Your task to perform on an android device: open app "Nova Launcher" (install if not already installed) and enter user name: "haggard@gmail.com" and password: "sadder" Image 0: 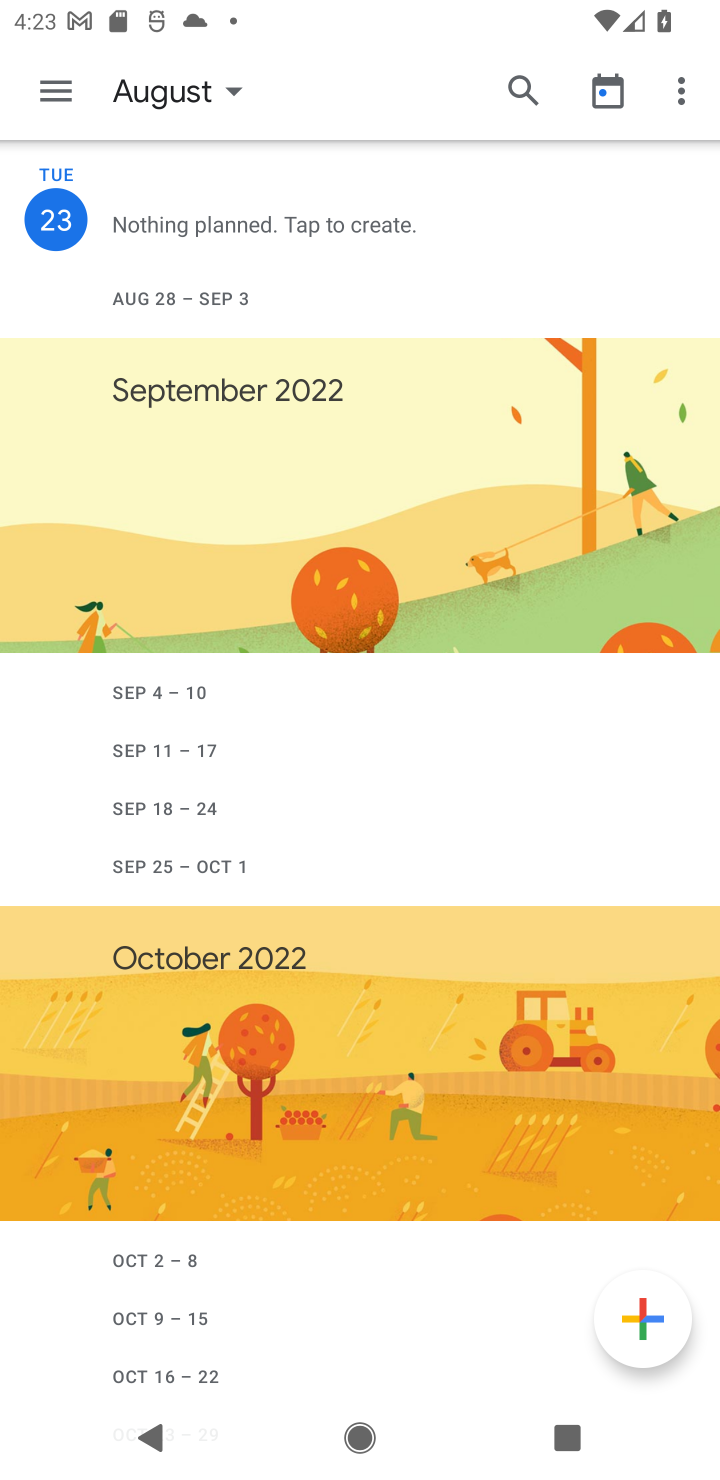
Step 0: press home button
Your task to perform on an android device: open app "Nova Launcher" (install if not already installed) and enter user name: "haggard@gmail.com" and password: "sadder" Image 1: 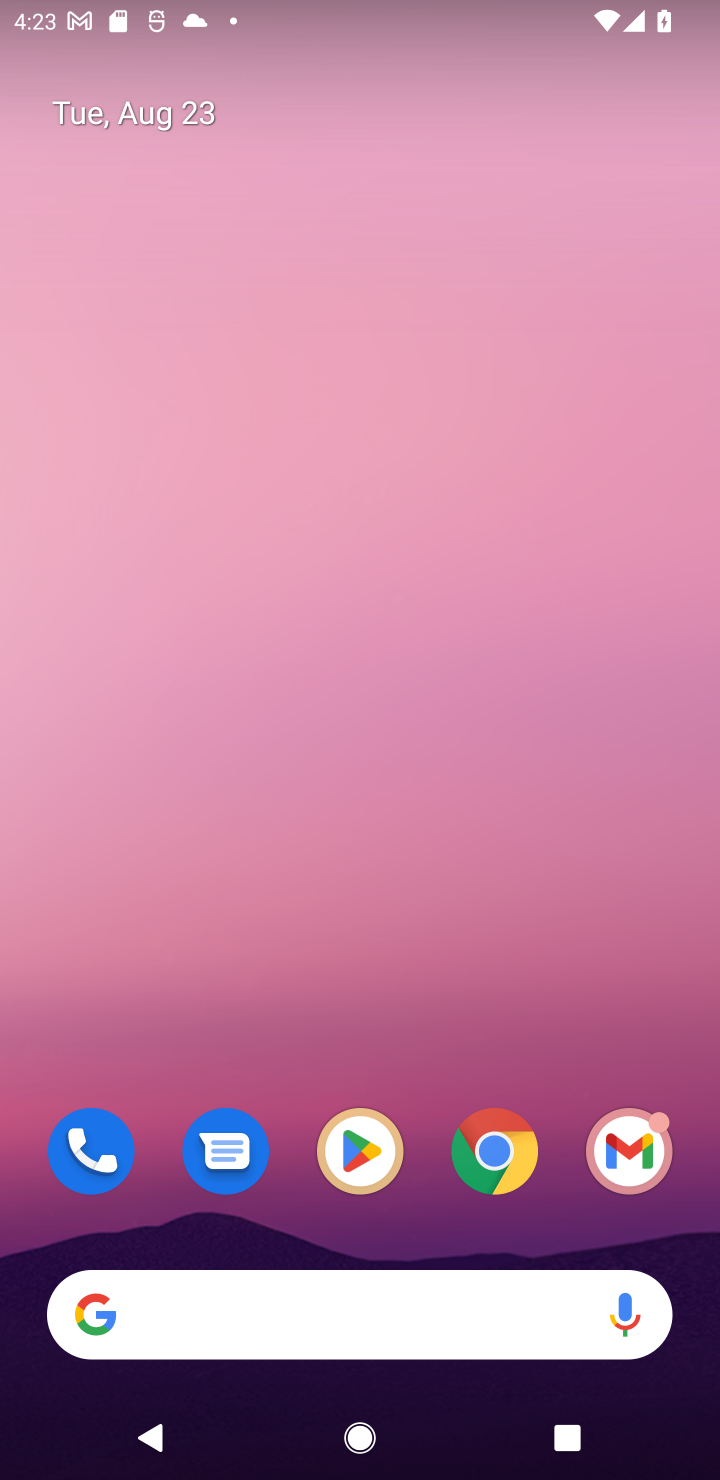
Step 1: click (379, 1151)
Your task to perform on an android device: open app "Nova Launcher" (install if not already installed) and enter user name: "haggard@gmail.com" and password: "sadder" Image 2: 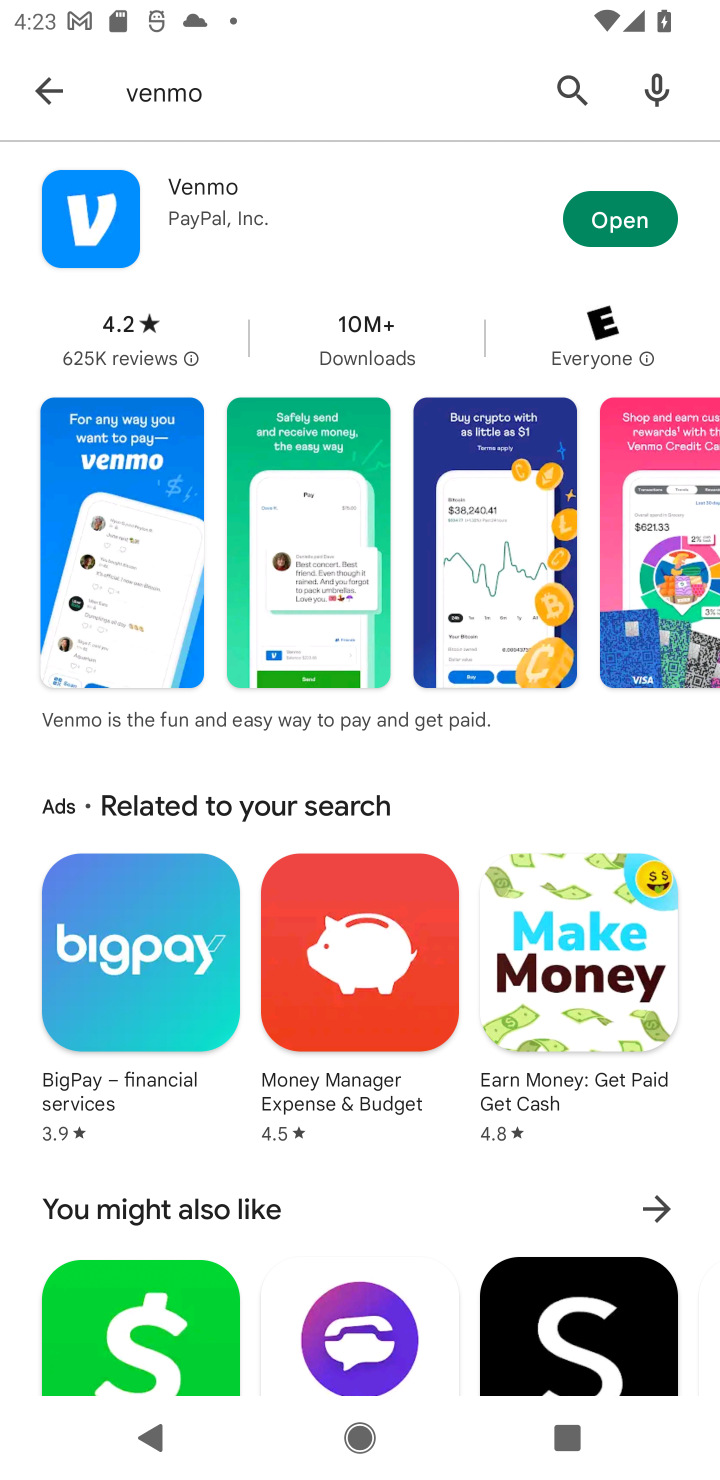
Step 2: click (571, 81)
Your task to perform on an android device: open app "Nova Launcher" (install if not already installed) and enter user name: "haggard@gmail.com" and password: "sadder" Image 3: 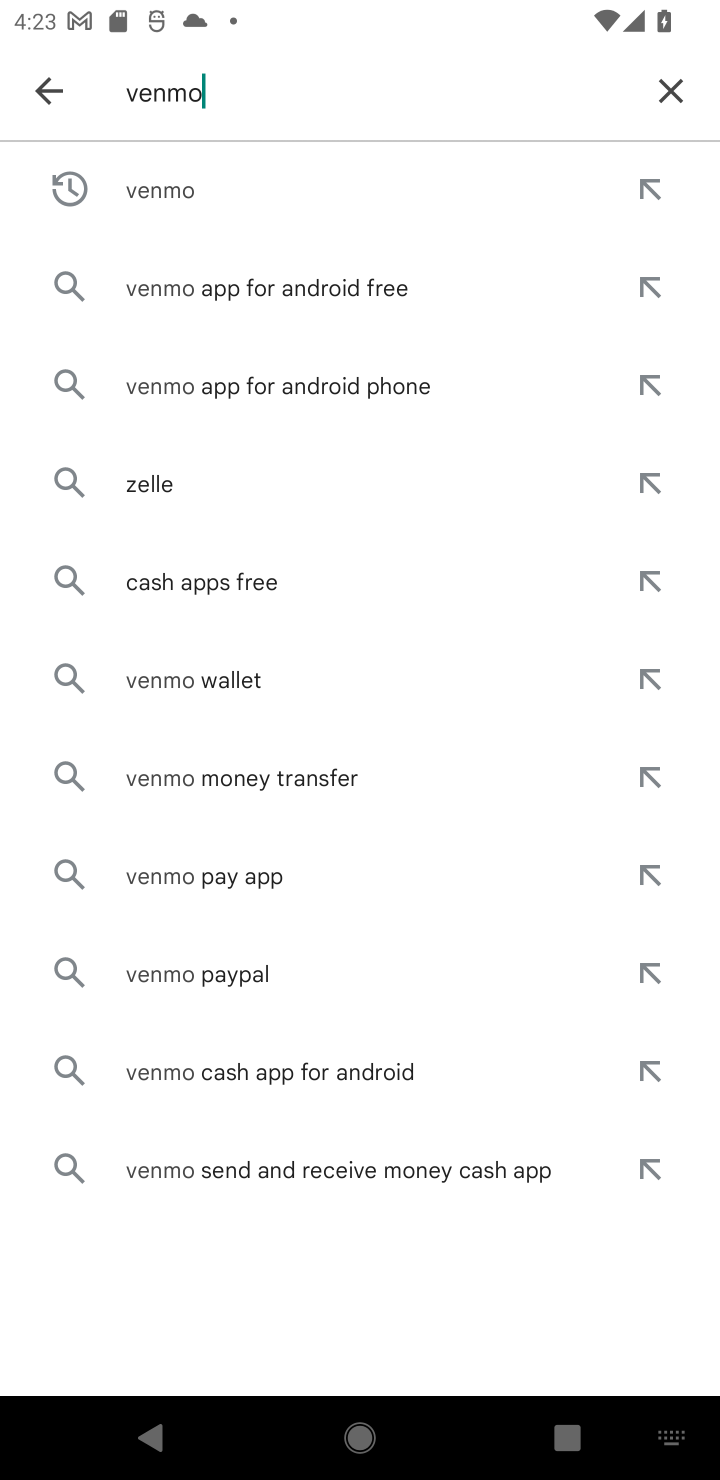
Step 3: click (668, 87)
Your task to perform on an android device: open app "Nova Launcher" (install if not already installed) and enter user name: "haggard@gmail.com" and password: "sadder" Image 4: 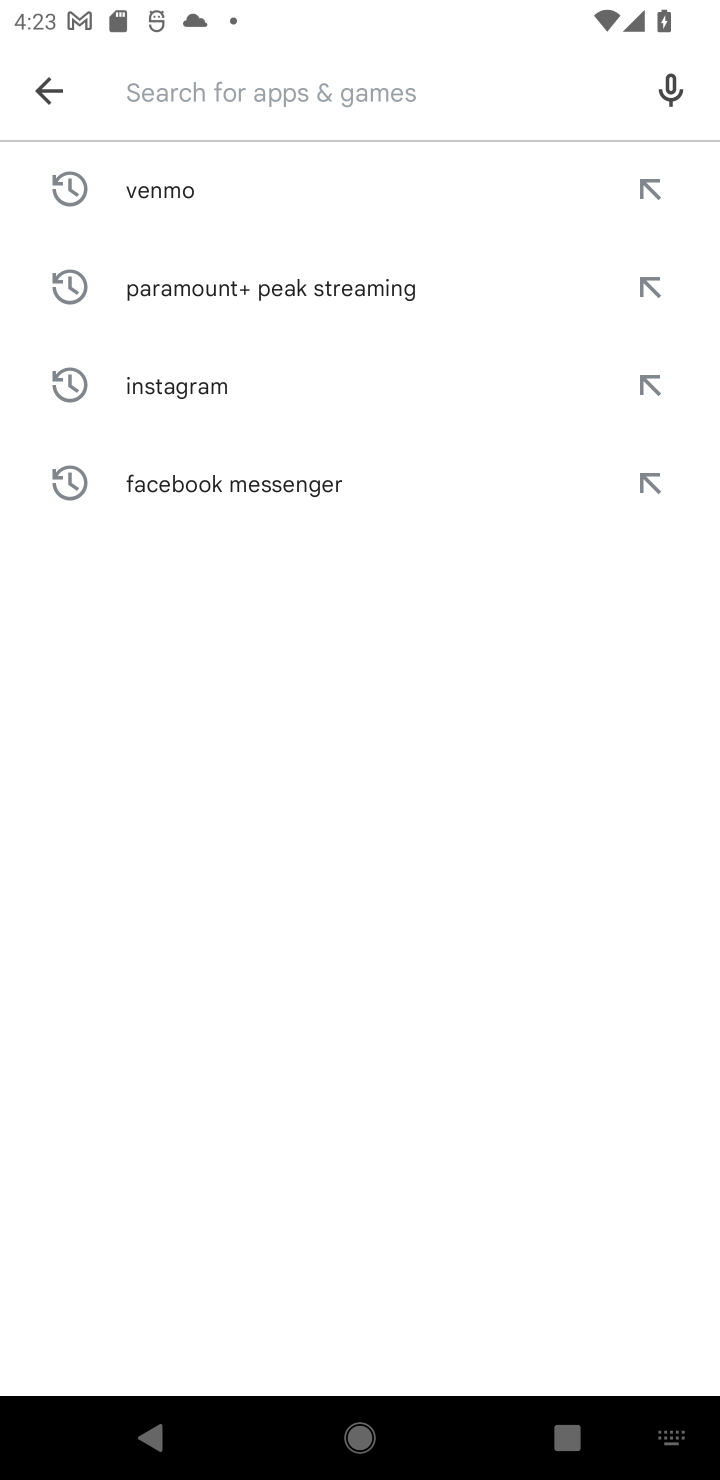
Step 4: type "Nova Launcher"
Your task to perform on an android device: open app "Nova Launcher" (install if not already installed) and enter user name: "haggard@gmail.com" and password: "sadder" Image 5: 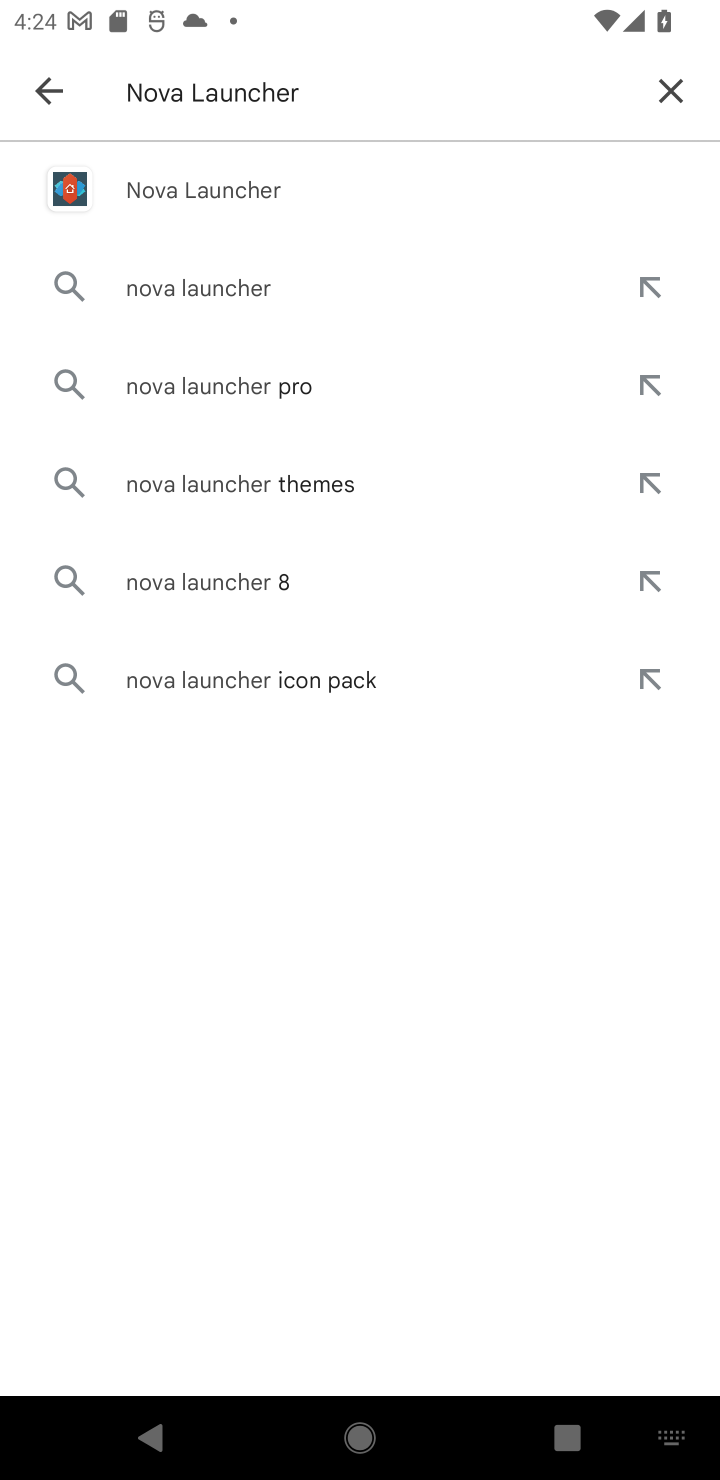
Step 5: click (209, 186)
Your task to perform on an android device: open app "Nova Launcher" (install if not already installed) and enter user name: "haggard@gmail.com" and password: "sadder" Image 6: 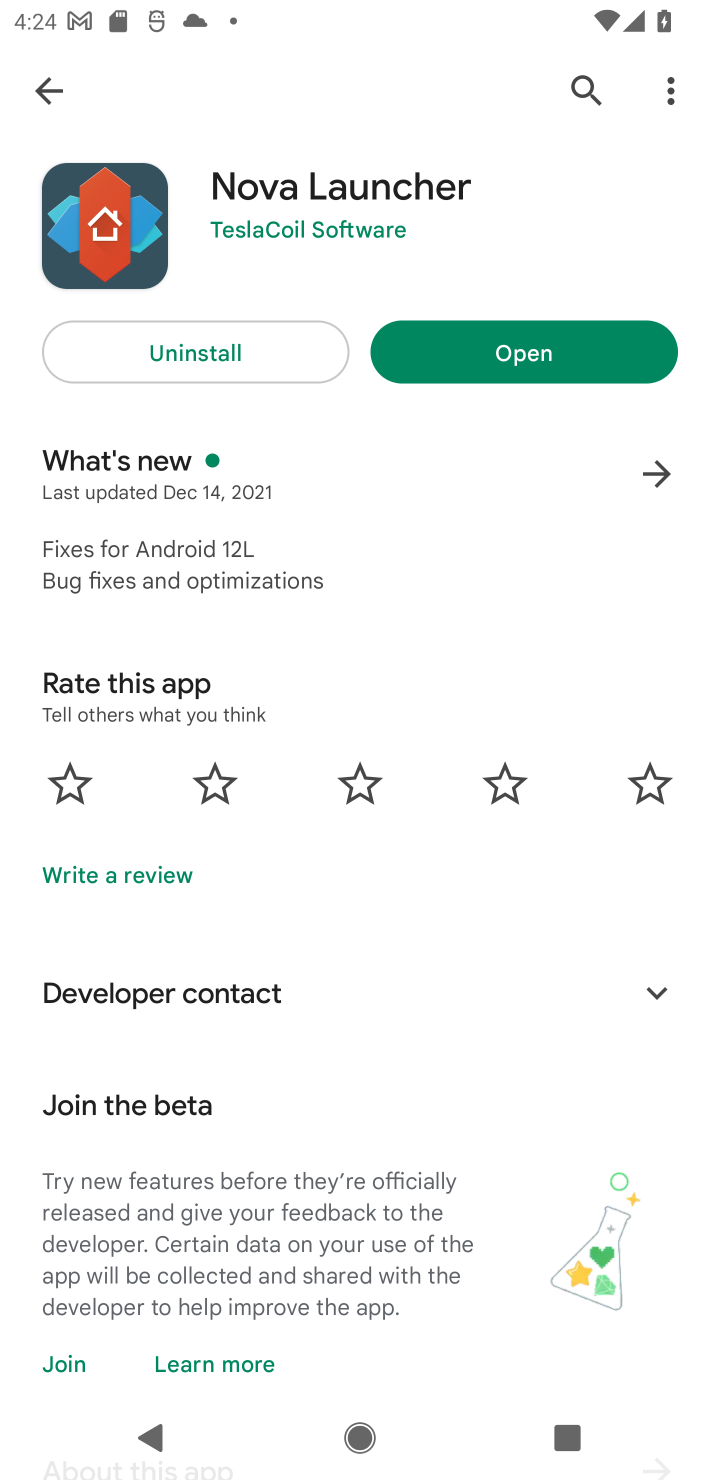
Step 6: click (590, 362)
Your task to perform on an android device: open app "Nova Launcher" (install if not already installed) and enter user name: "haggard@gmail.com" and password: "sadder" Image 7: 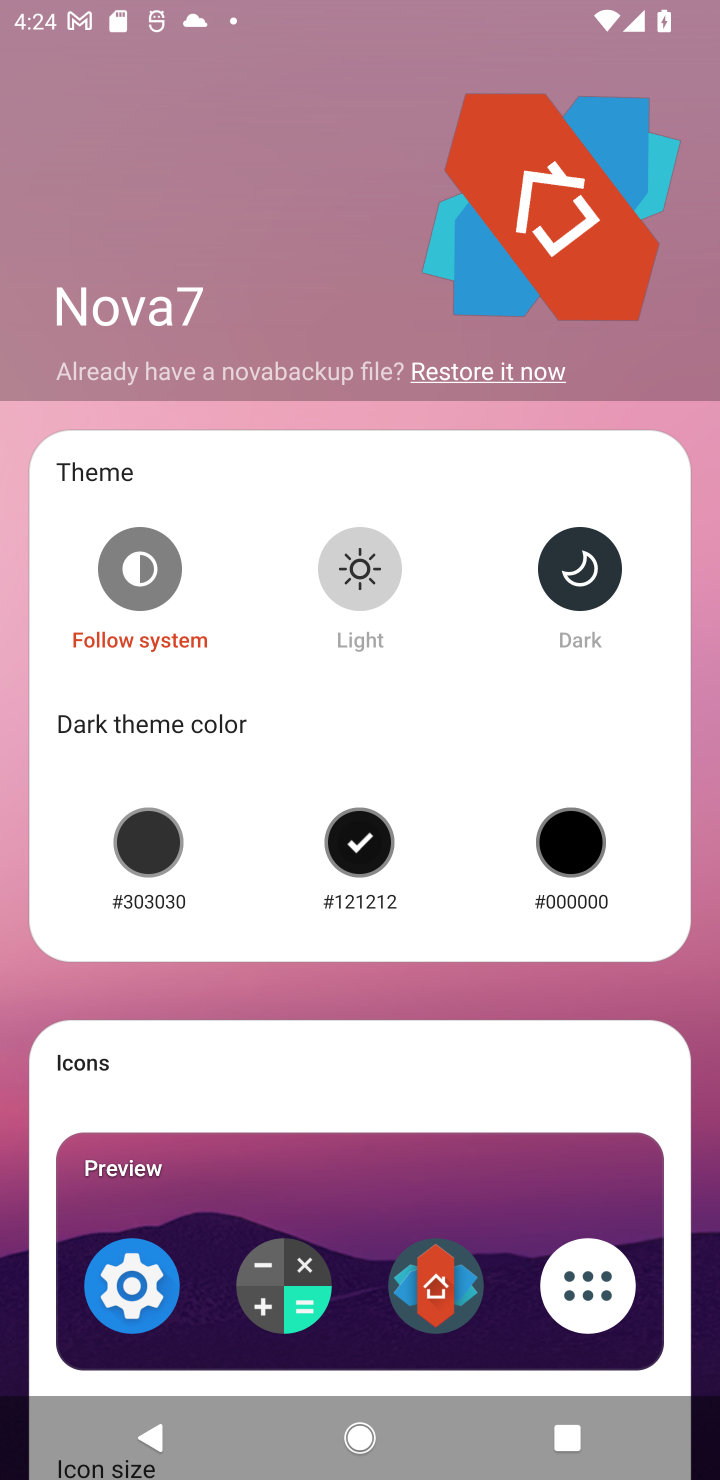
Step 7: task complete